Your task to perform on an android device: turn on sleep mode Image 0: 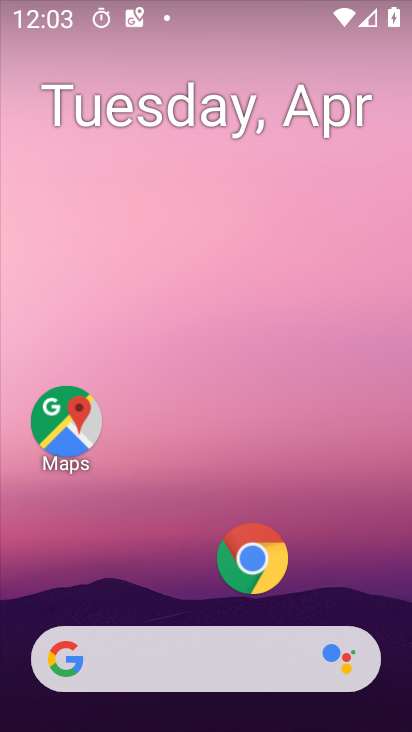
Step 0: drag from (213, 493) to (262, 181)
Your task to perform on an android device: turn on sleep mode Image 1: 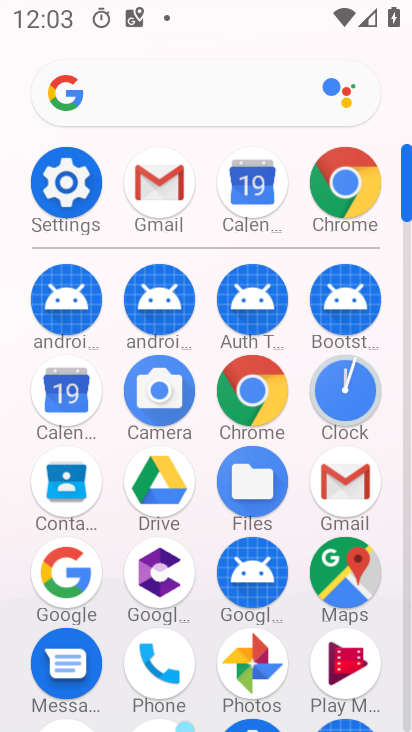
Step 1: drag from (189, 644) to (228, 344)
Your task to perform on an android device: turn on sleep mode Image 2: 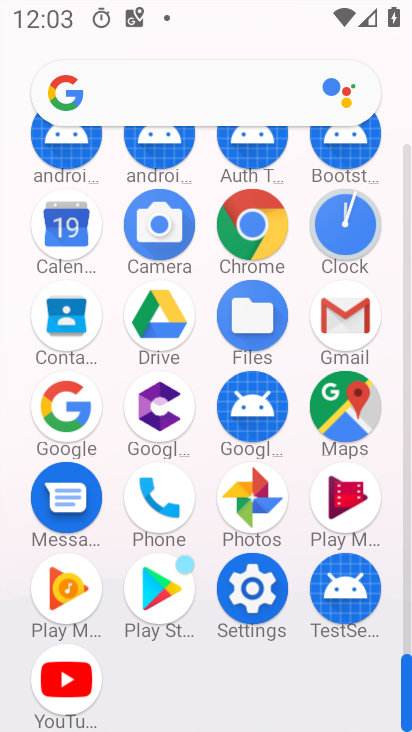
Step 2: click (249, 584)
Your task to perform on an android device: turn on sleep mode Image 3: 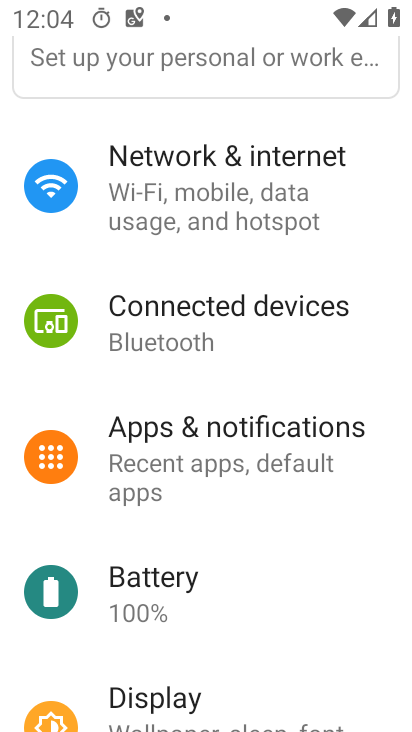
Step 3: click (172, 690)
Your task to perform on an android device: turn on sleep mode Image 4: 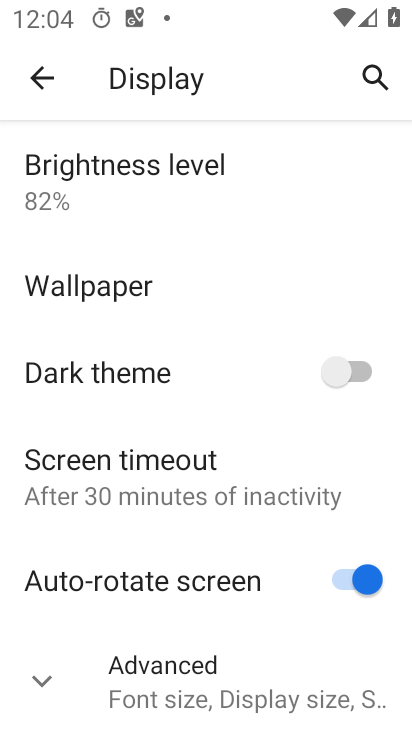
Step 4: task complete